Your task to perform on an android device: remove spam from my inbox in the gmail app Image 0: 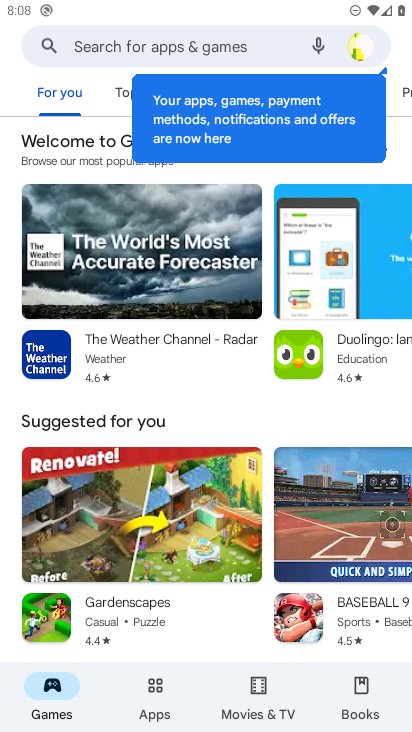
Step 0: press home button
Your task to perform on an android device: remove spam from my inbox in the gmail app Image 1: 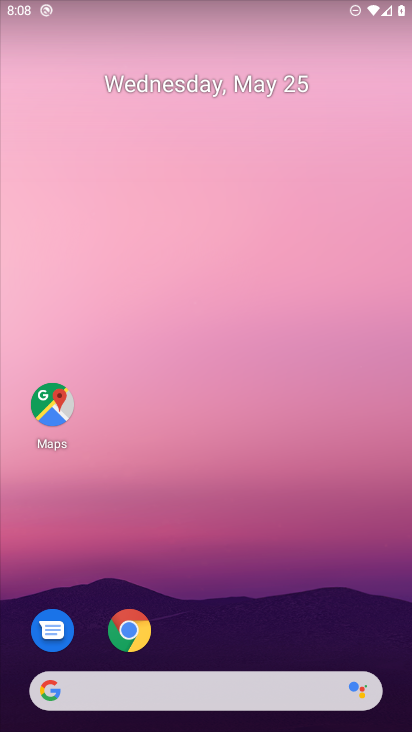
Step 1: drag from (131, 659) to (196, 303)
Your task to perform on an android device: remove spam from my inbox in the gmail app Image 2: 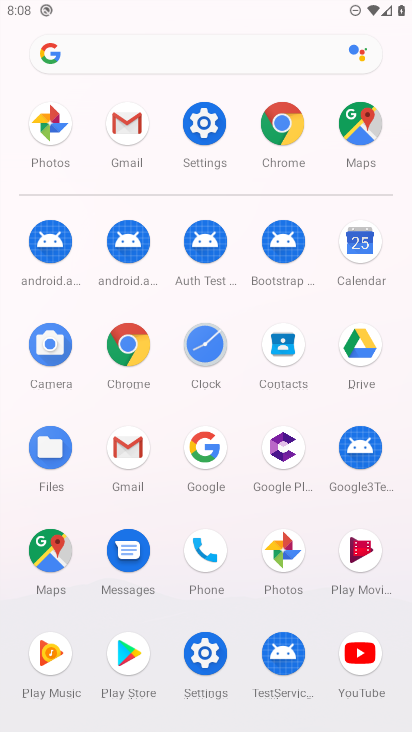
Step 2: click (121, 128)
Your task to perform on an android device: remove spam from my inbox in the gmail app Image 3: 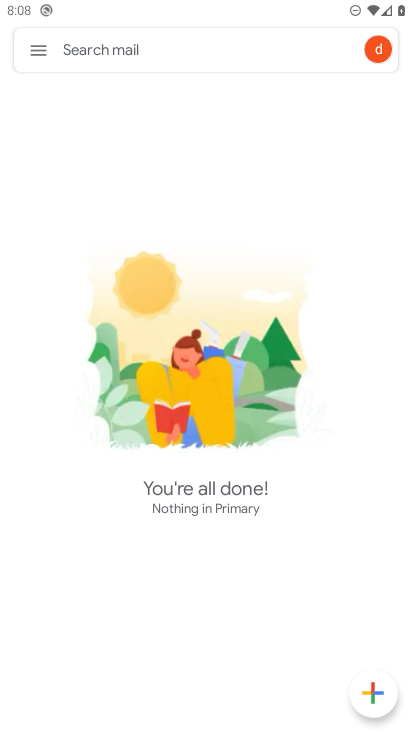
Step 3: click (38, 45)
Your task to perform on an android device: remove spam from my inbox in the gmail app Image 4: 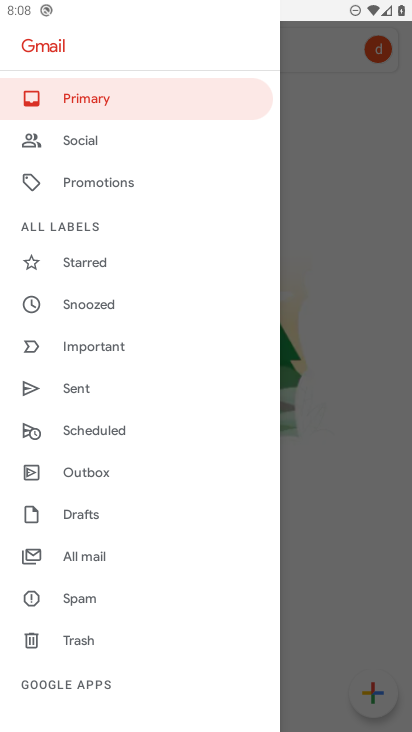
Step 4: click (83, 596)
Your task to perform on an android device: remove spam from my inbox in the gmail app Image 5: 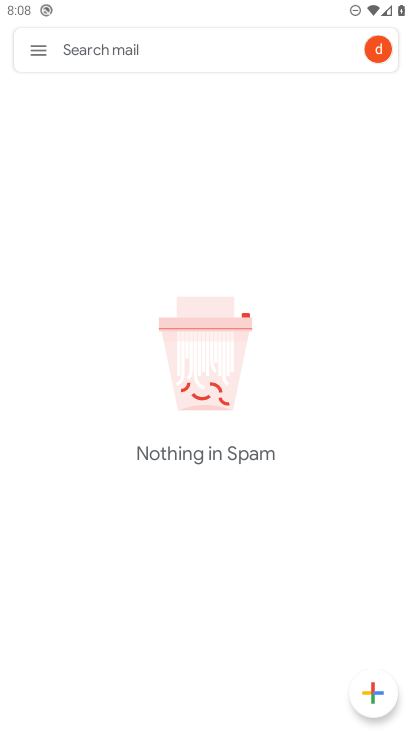
Step 5: task complete